Your task to perform on an android device: check out phone information Image 0: 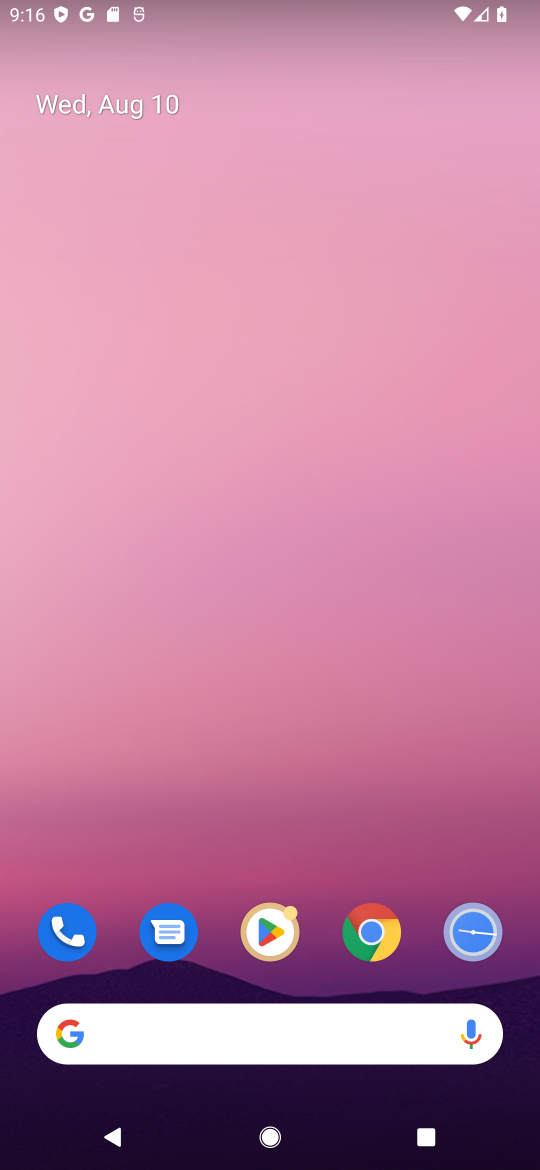
Step 0: drag from (329, 951) to (217, 401)
Your task to perform on an android device: check out phone information Image 1: 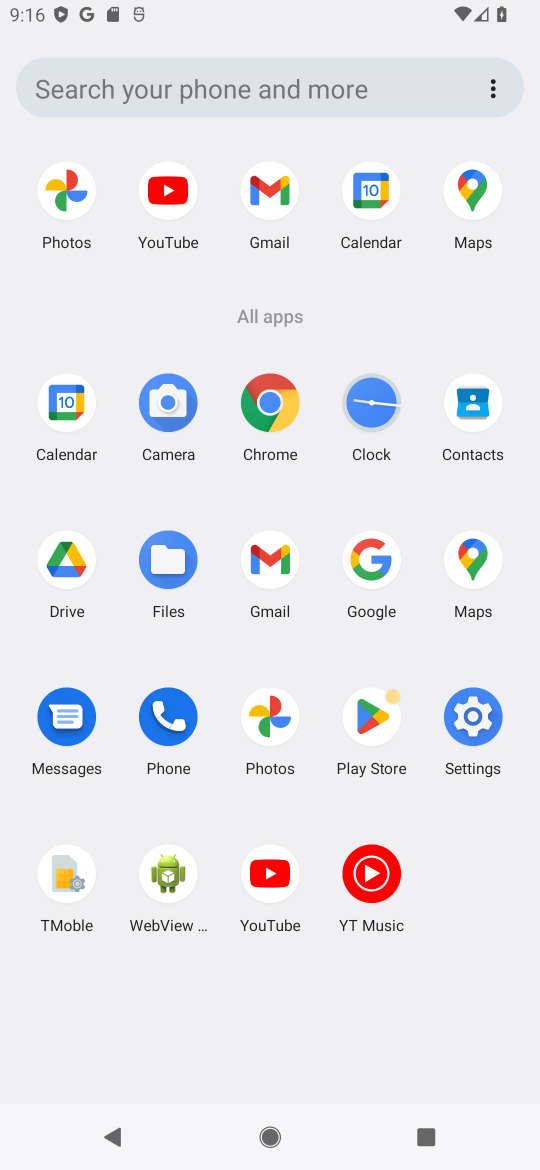
Step 1: click (475, 699)
Your task to perform on an android device: check out phone information Image 2: 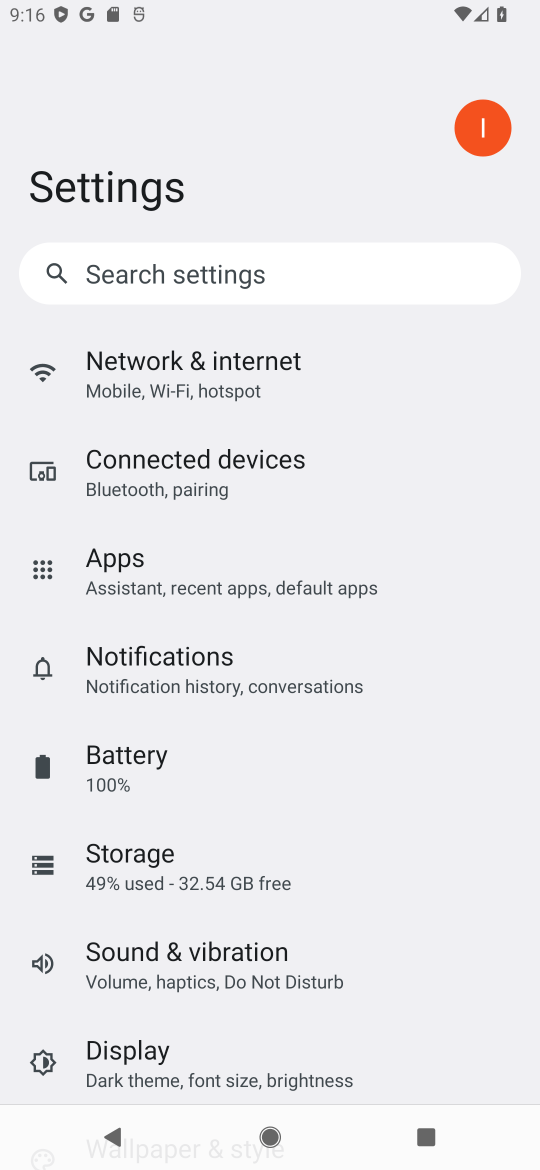
Step 2: drag from (337, 983) to (276, 459)
Your task to perform on an android device: check out phone information Image 3: 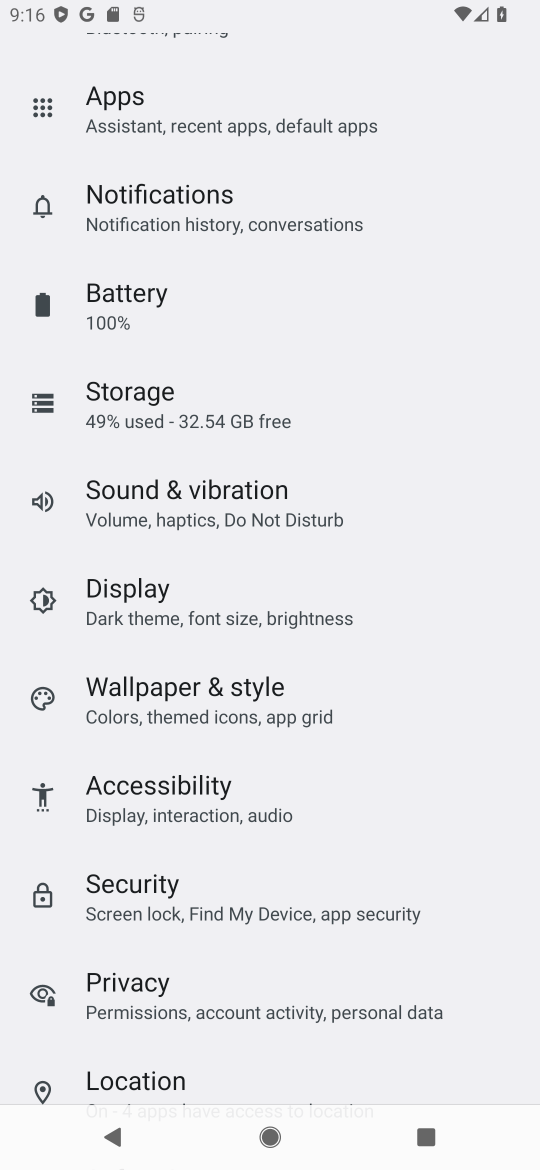
Step 3: drag from (278, 961) to (234, 257)
Your task to perform on an android device: check out phone information Image 4: 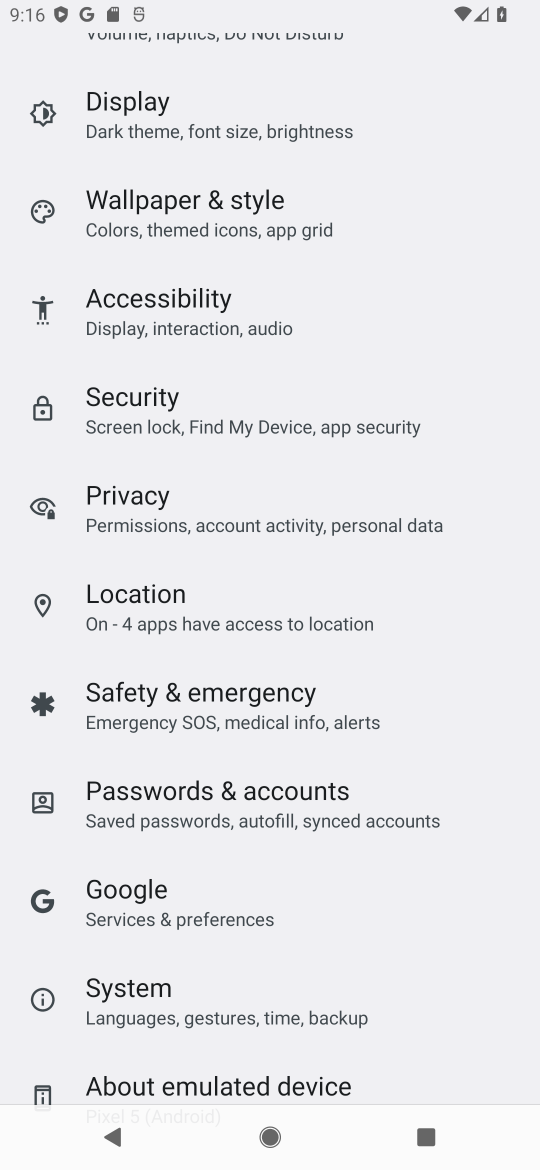
Step 4: drag from (379, 962) to (339, 156)
Your task to perform on an android device: check out phone information Image 5: 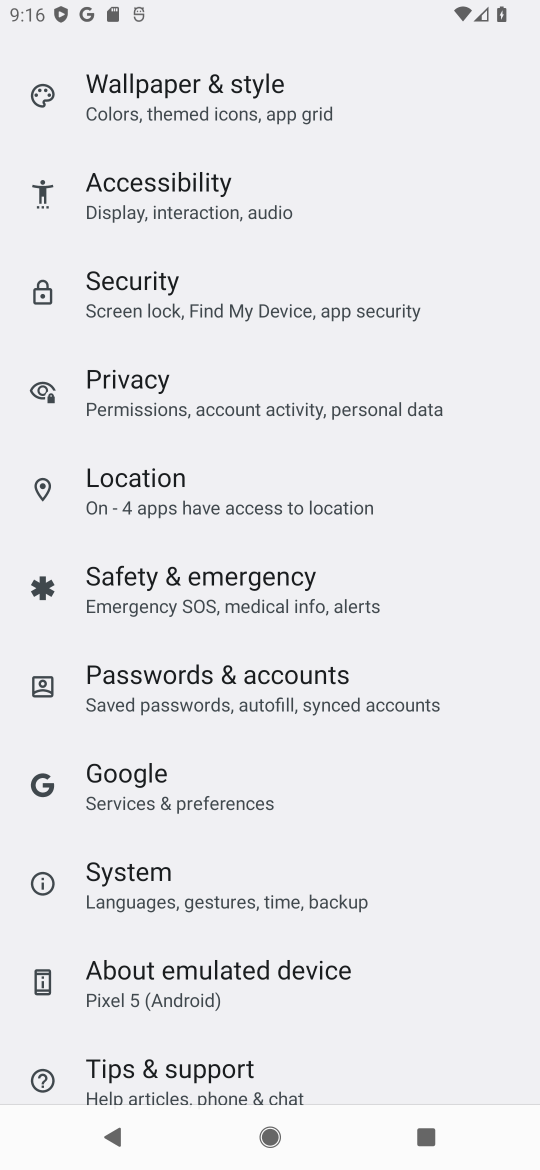
Step 5: drag from (386, 947) to (334, 471)
Your task to perform on an android device: check out phone information Image 6: 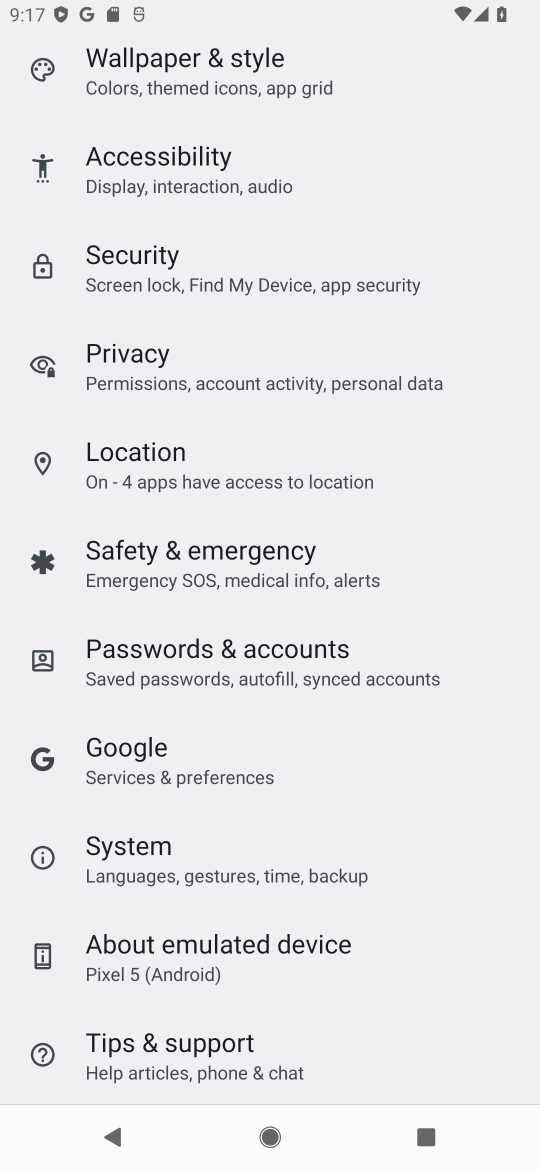
Step 6: click (145, 954)
Your task to perform on an android device: check out phone information Image 7: 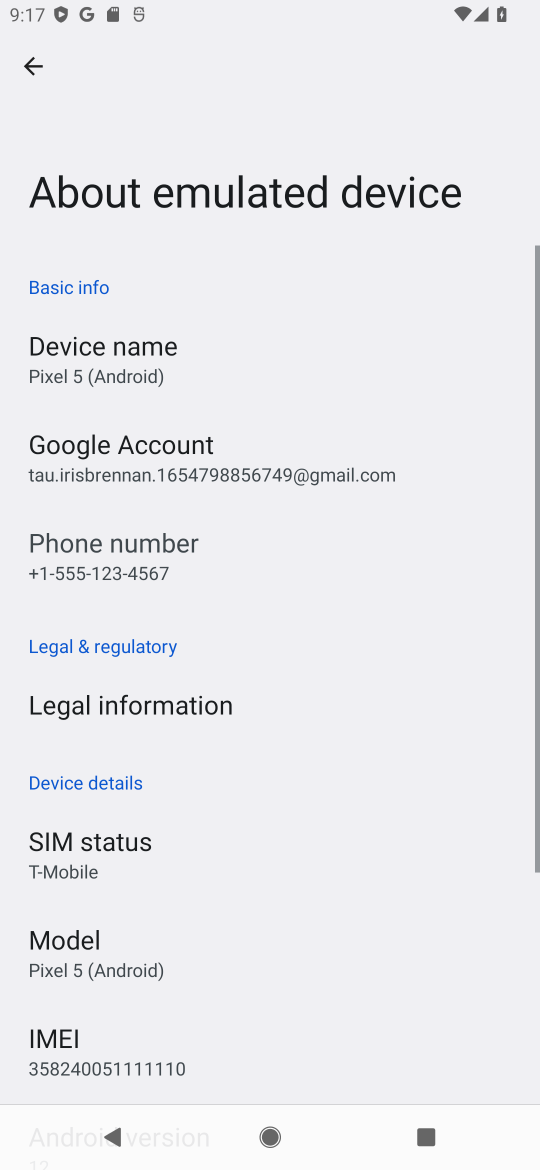
Step 7: task complete